Your task to perform on an android device: Go to Android settings Image 0: 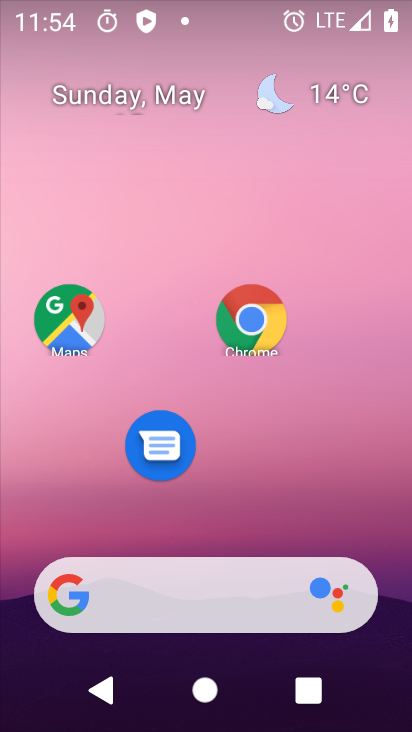
Step 0: drag from (143, 579) to (249, 92)
Your task to perform on an android device: Go to Android settings Image 1: 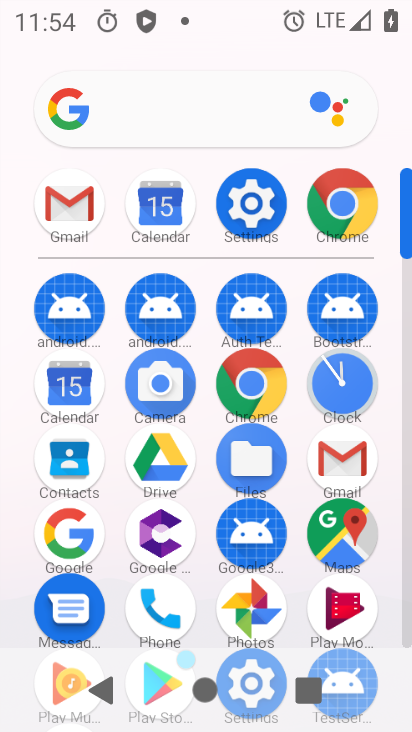
Step 1: click (243, 194)
Your task to perform on an android device: Go to Android settings Image 2: 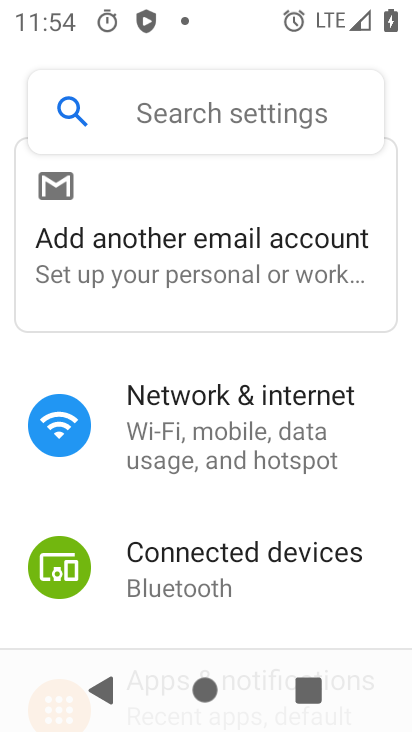
Step 2: task complete